Your task to perform on an android device: toggle location history Image 0: 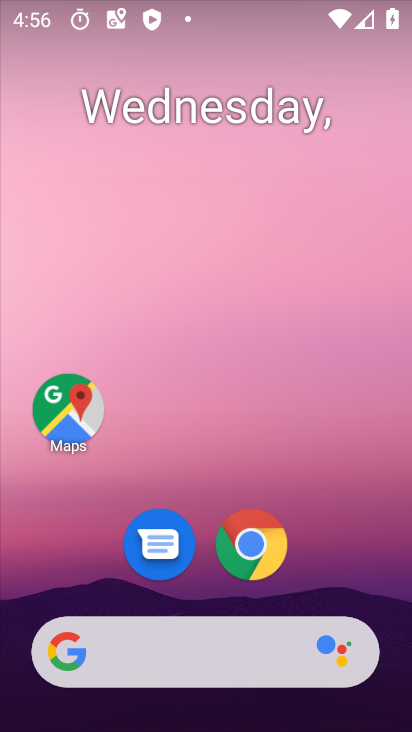
Step 0: drag from (203, 638) to (145, 53)
Your task to perform on an android device: toggle location history Image 1: 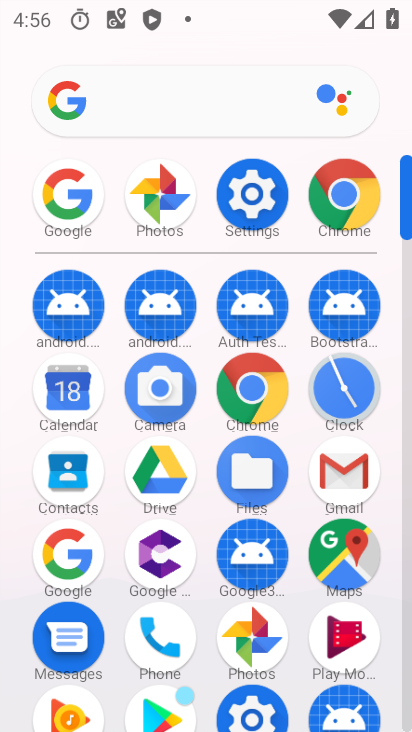
Step 1: click (238, 186)
Your task to perform on an android device: toggle location history Image 2: 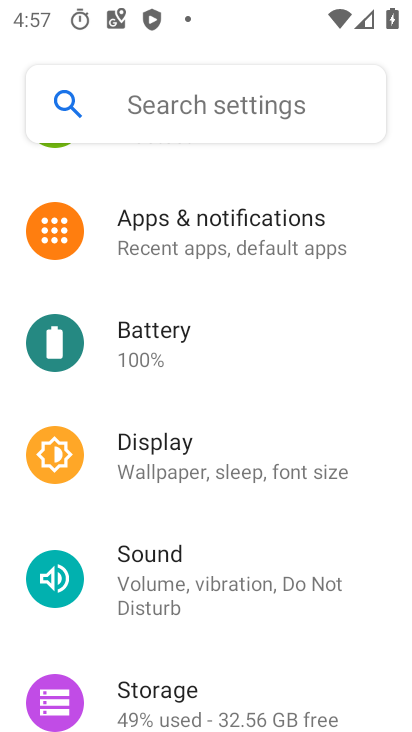
Step 2: drag from (295, 592) to (222, 139)
Your task to perform on an android device: toggle location history Image 3: 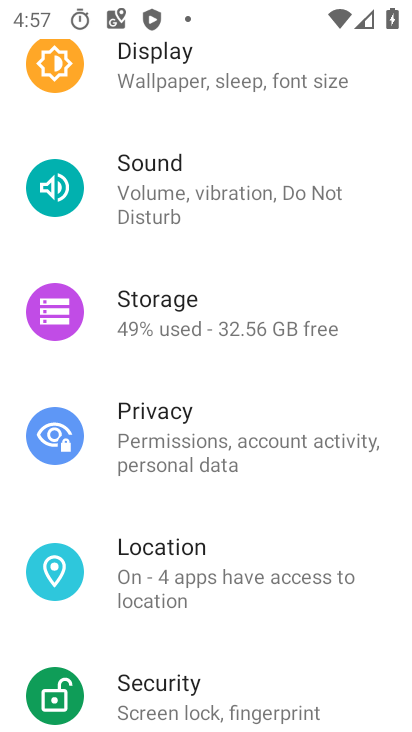
Step 3: click (157, 595)
Your task to perform on an android device: toggle location history Image 4: 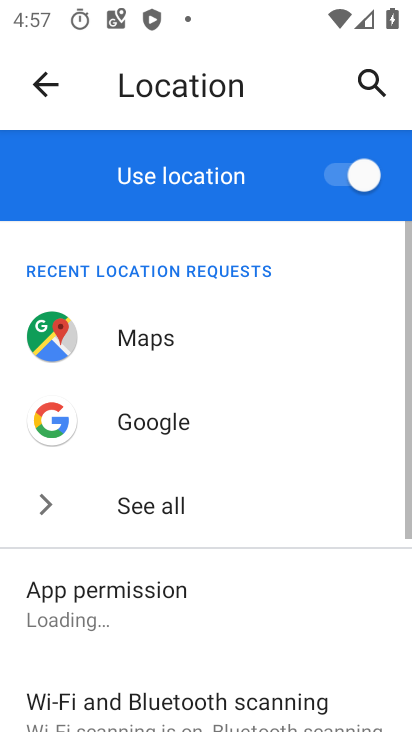
Step 4: drag from (257, 586) to (270, 144)
Your task to perform on an android device: toggle location history Image 5: 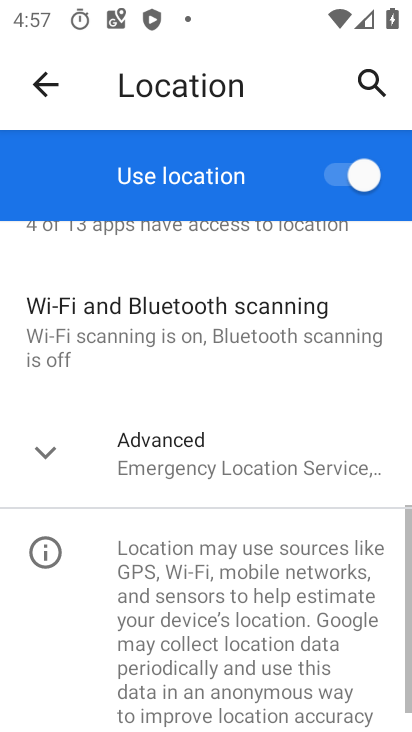
Step 5: click (190, 455)
Your task to perform on an android device: toggle location history Image 6: 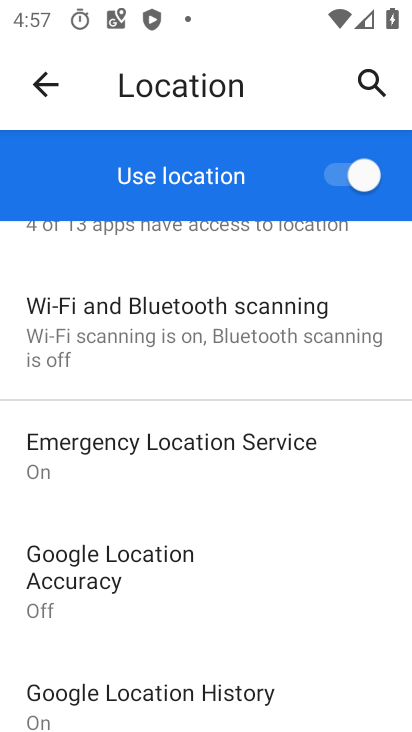
Step 6: drag from (287, 561) to (287, 310)
Your task to perform on an android device: toggle location history Image 7: 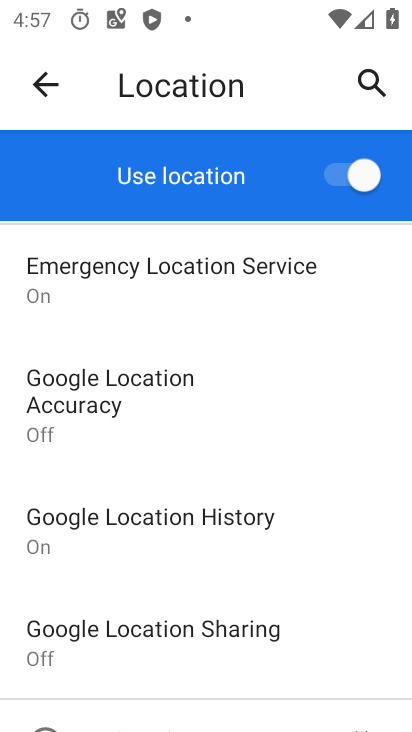
Step 7: click (227, 514)
Your task to perform on an android device: toggle location history Image 8: 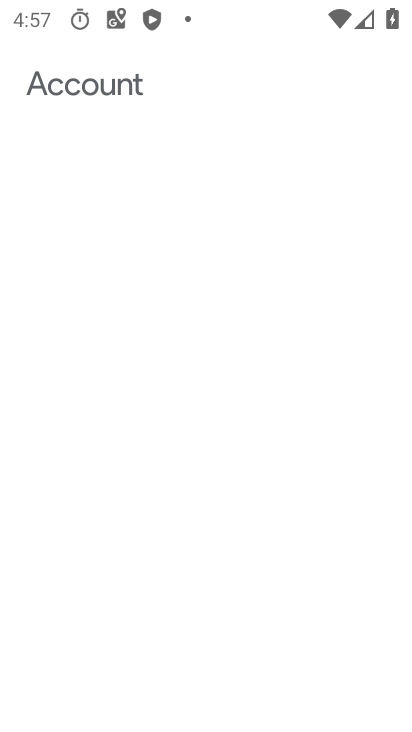
Step 8: drag from (318, 595) to (237, 103)
Your task to perform on an android device: toggle location history Image 9: 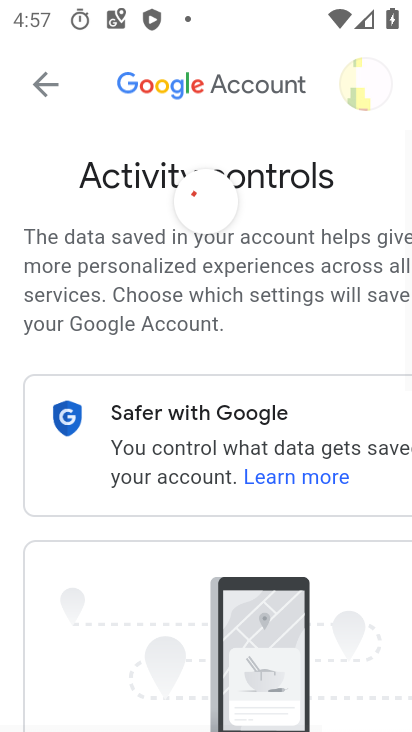
Step 9: drag from (225, 536) to (191, 25)
Your task to perform on an android device: toggle location history Image 10: 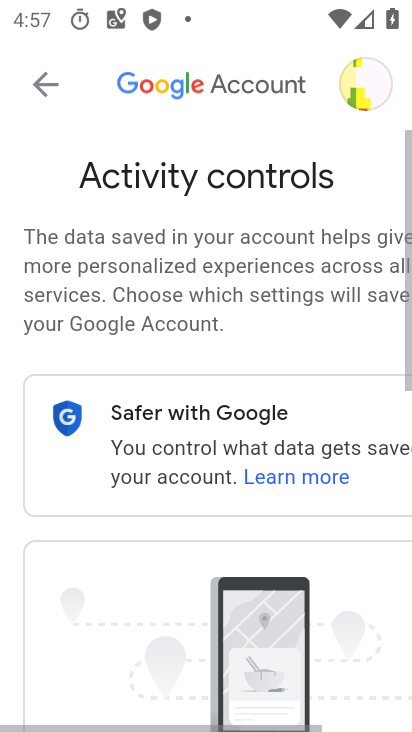
Step 10: click (349, 525)
Your task to perform on an android device: toggle location history Image 11: 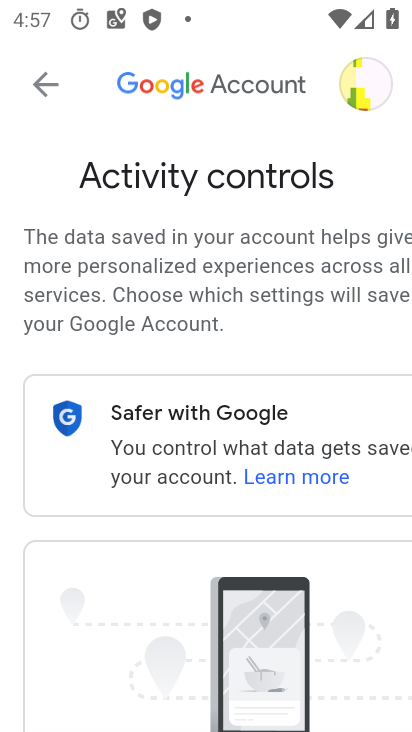
Step 11: drag from (349, 525) to (354, 23)
Your task to perform on an android device: toggle location history Image 12: 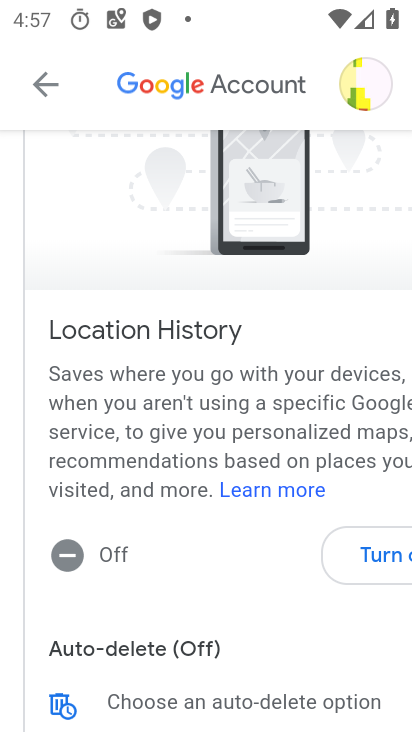
Step 12: click (371, 565)
Your task to perform on an android device: toggle location history Image 13: 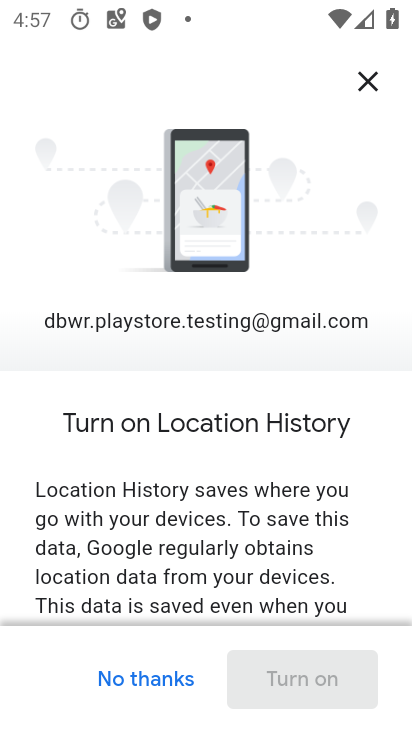
Step 13: drag from (286, 580) to (279, 0)
Your task to perform on an android device: toggle location history Image 14: 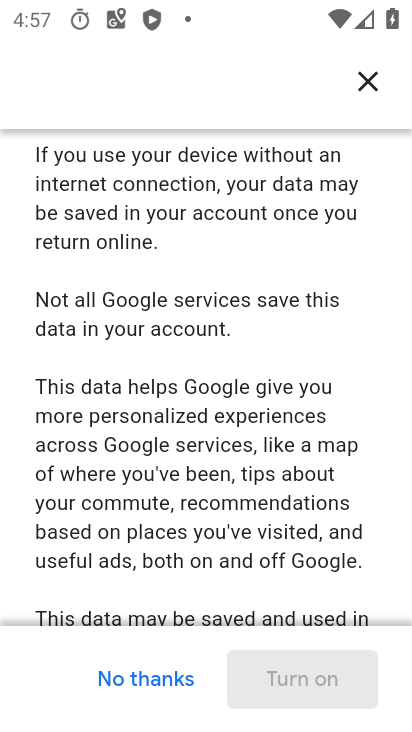
Step 14: drag from (265, 494) to (204, 6)
Your task to perform on an android device: toggle location history Image 15: 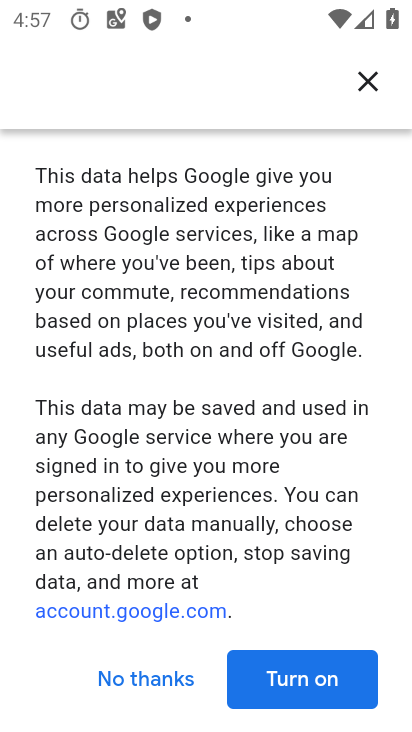
Step 15: click (289, 656)
Your task to perform on an android device: toggle location history Image 16: 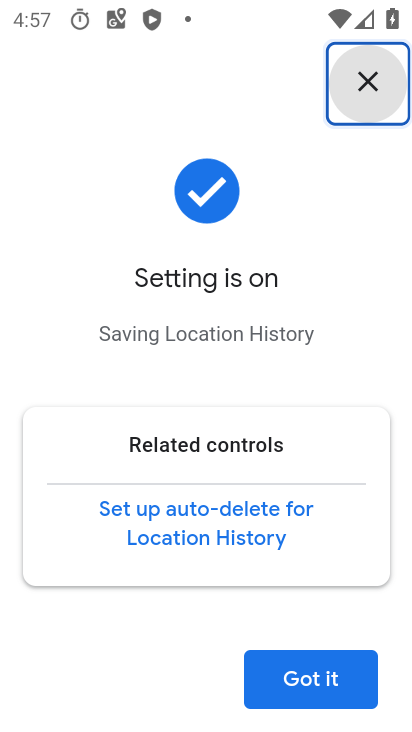
Step 16: click (303, 695)
Your task to perform on an android device: toggle location history Image 17: 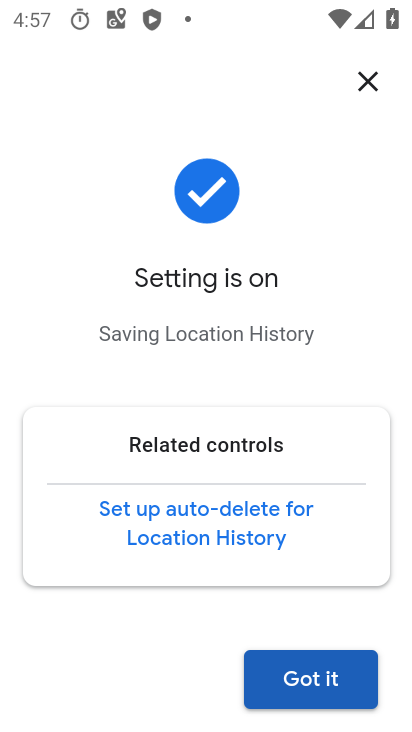
Step 17: task complete